Your task to perform on an android device: Open the Play Movies app and select the watchlist tab. Image 0: 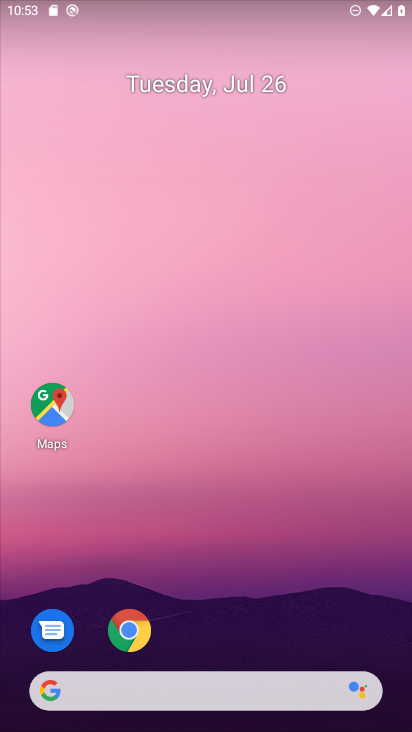
Step 0: drag from (385, 637) to (344, 116)
Your task to perform on an android device: Open the Play Movies app and select the watchlist tab. Image 1: 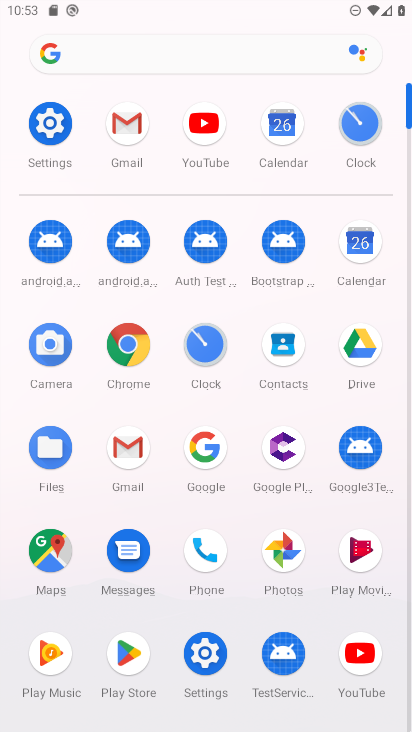
Step 1: click (361, 547)
Your task to perform on an android device: Open the Play Movies app and select the watchlist tab. Image 2: 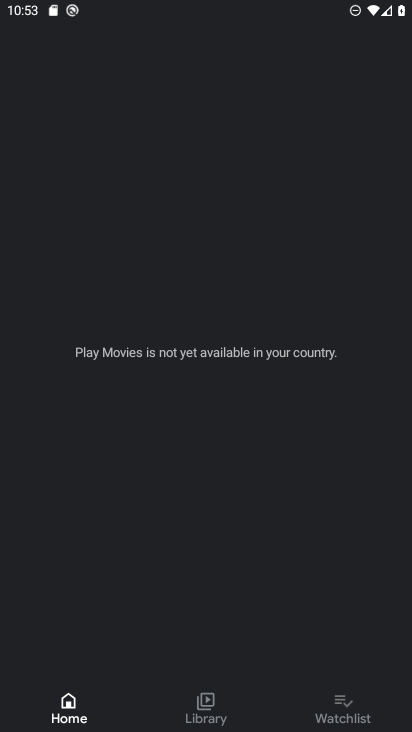
Step 2: click (346, 709)
Your task to perform on an android device: Open the Play Movies app and select the watchlist tab. Image 3: 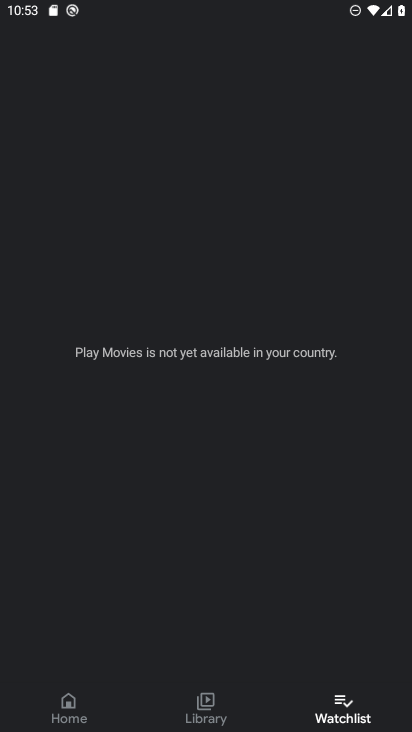
Step 3: task complete